Your task to perform on an android device: allow cookies in the chrome app Image 0: 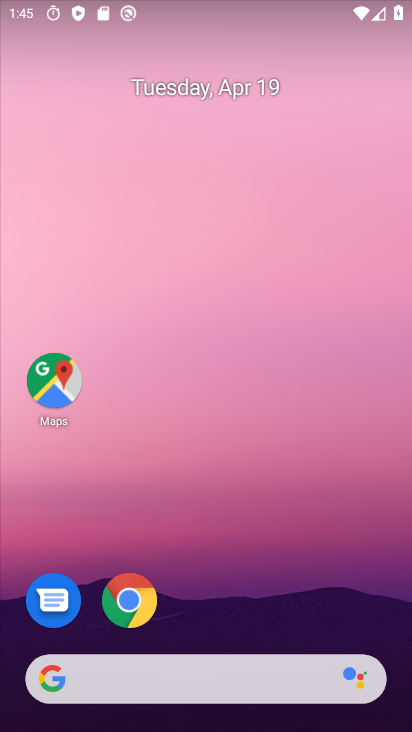
Step 0: drag from (301, 706) to (398, 168)
Your task to perform on an android device: allow cookies in the chrome app Image 1: 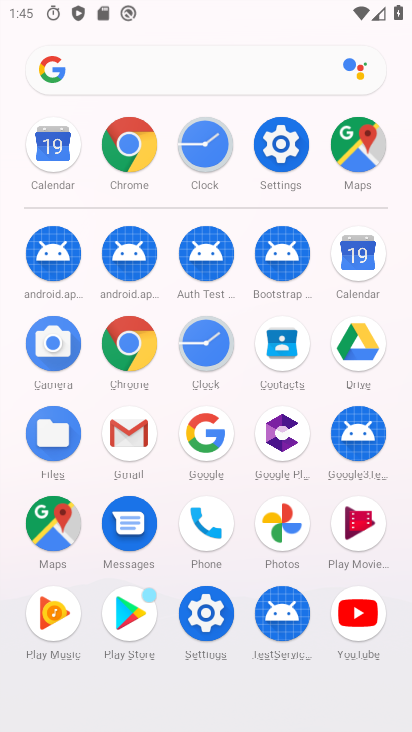
Step 1: click (136, 353)
Your task to perform on an android device: allow cookies in the chrome app Image 2: 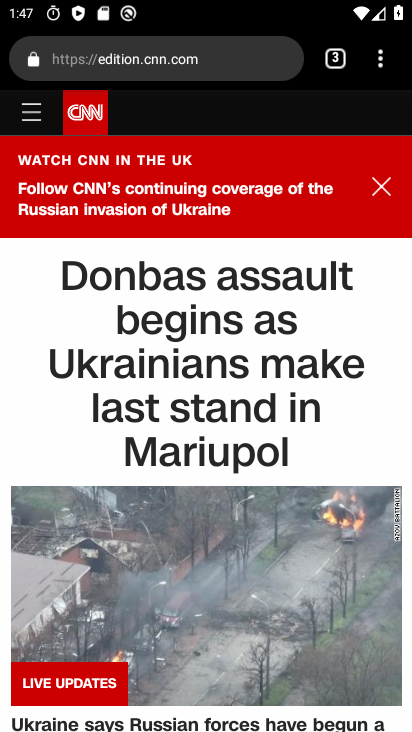
Step 2: click (375, 69)
Your task to perform on an android device: allow cookies in the chrome app Image 3: 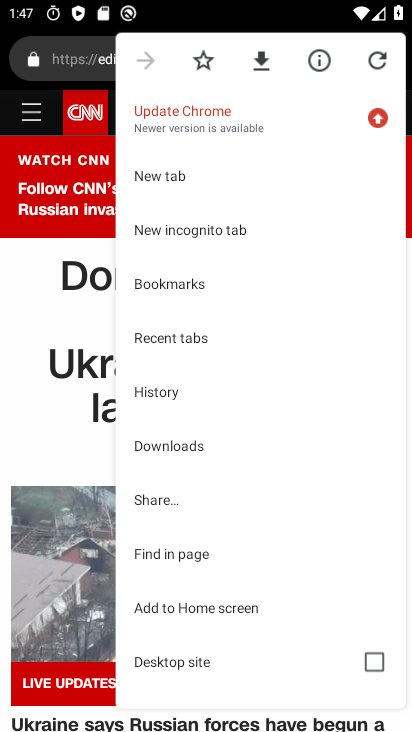
Step 3: drag from (206, 527) to (162, 624)
Your task to perform on an android device: allow cookies in the chrome app Image 4: 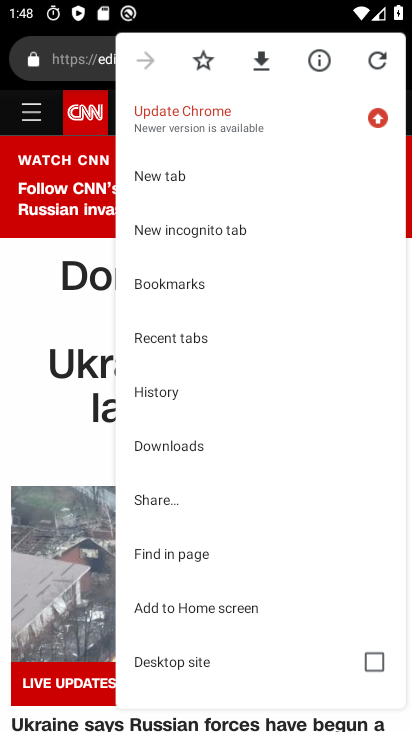
Step 4: drag from (197, 649) to (248, 509)
Your task to perform on an android device: allow cookies in the chrome app Image 5: 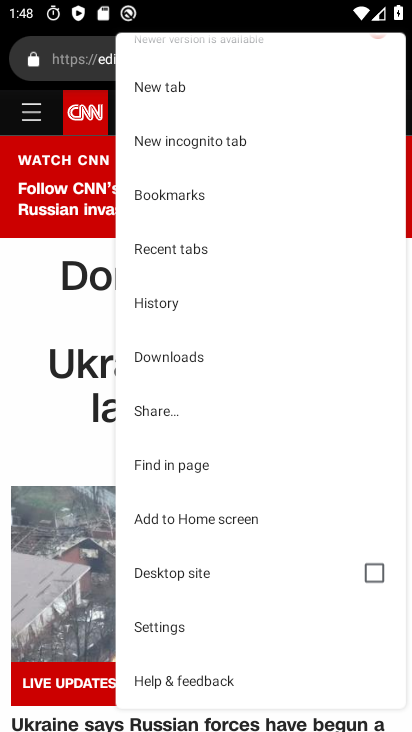
Step 5: click (166, 626)
Your task to perform on an android device: allow cookies in the chrome app Image 6: 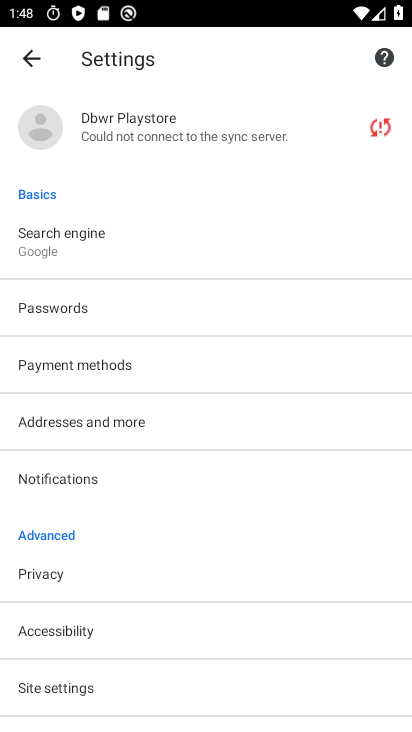
Step 6: drag from (166, 626) to (177, 500)
Your task to perform on an android device: allow cookies in the chrome app Image 7: 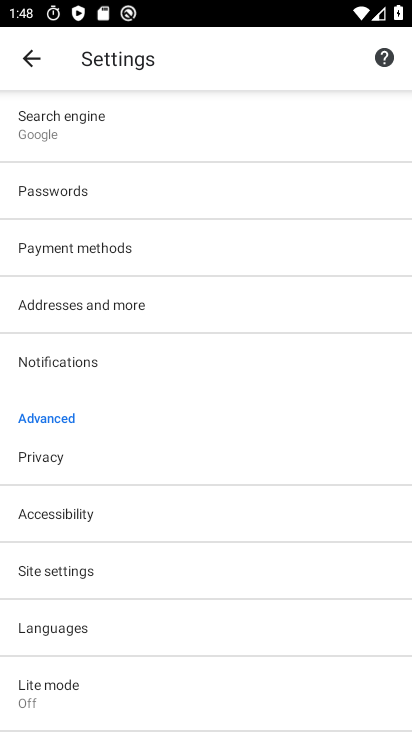
Step 7: click (52, 583)
Your task to perform on an android device: allow cookies in the chrome app Image 8: 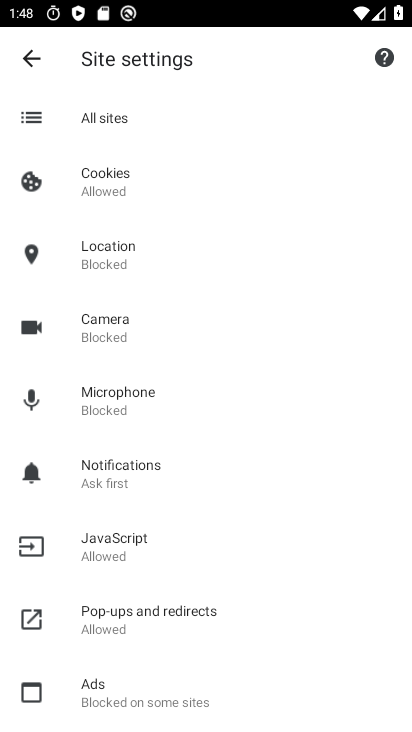
Step 8: click (133, 181)
Your task to perform on an android device: allow cookies in the chrome app Image 9: 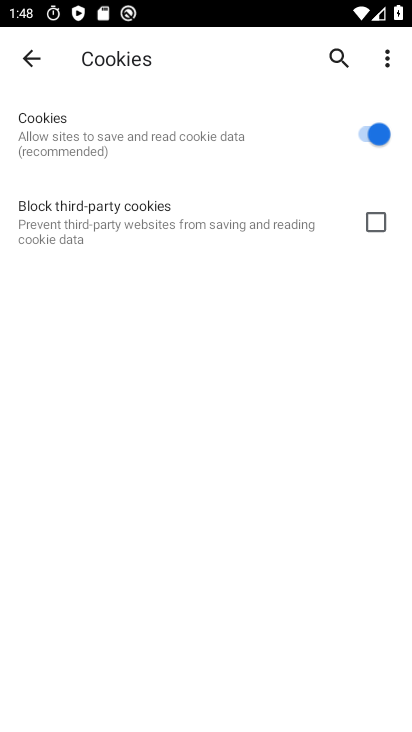
Step 9: click (194, 122)
Your task to perform on an android device: allow cookies in the chrome app Image 10: 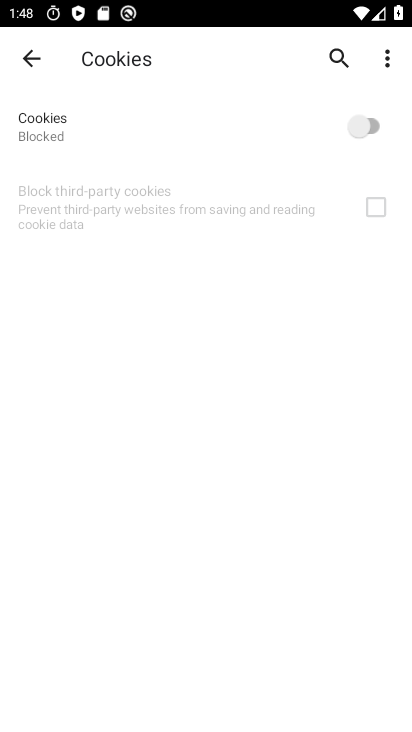
Step 10: click (196, 114)
Your task to perform on an android device: allow cookies in the chrome app Image 11: 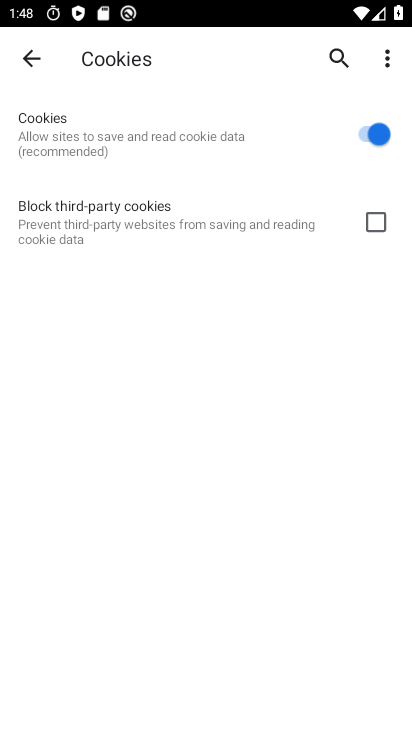
Step 11: task complete